Your task to perform on an android device: star an email in the gmail app Image 0: 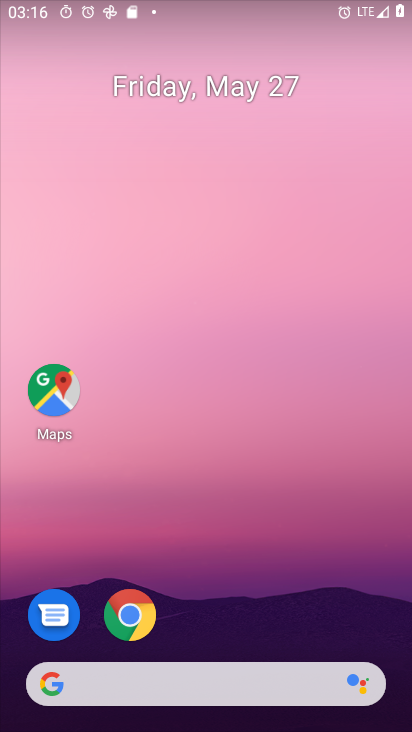
Step 0: drag from (311, 599) to (329, 240)
Your task to perform on an android device: star an email in the gmail app Image 1: 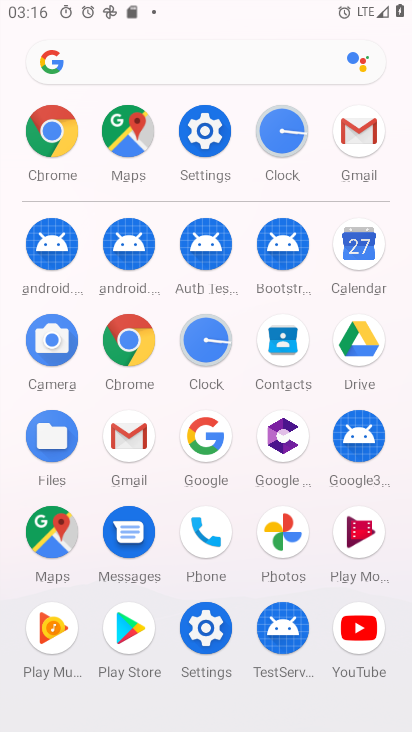
Step 1: click (139, 449)
Your task to perform on an android device: star an email in the gmail app Image 2: 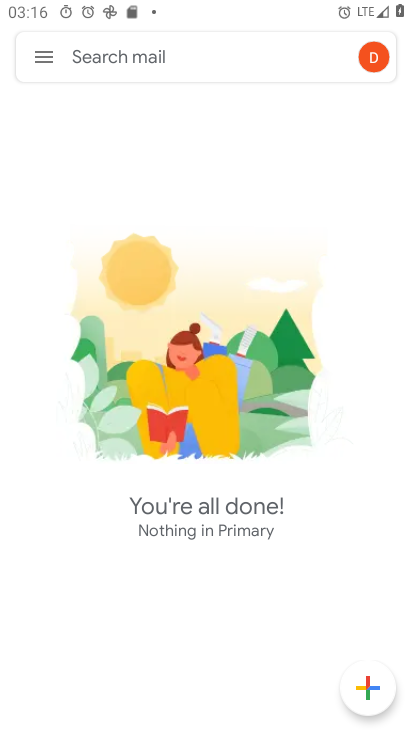
Step 2: task complete